Your task to perform on an android device: Play the last video I watched on Youtube Image 0: 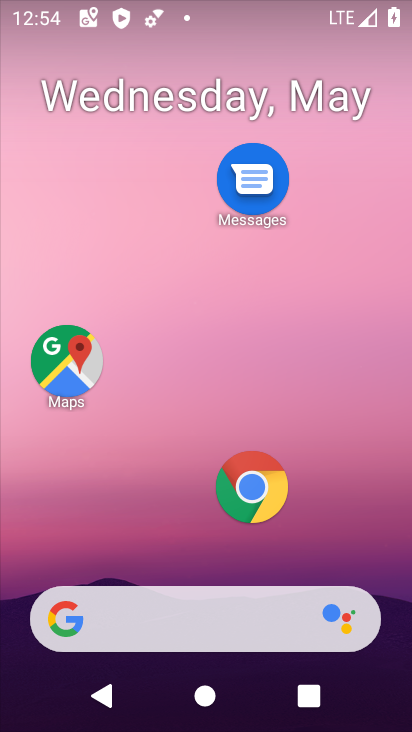
Step 0: drag from (211, 540) to (330, 6)
Your task to perform on an android device: Play the last video I watched on Youtube Image 1: 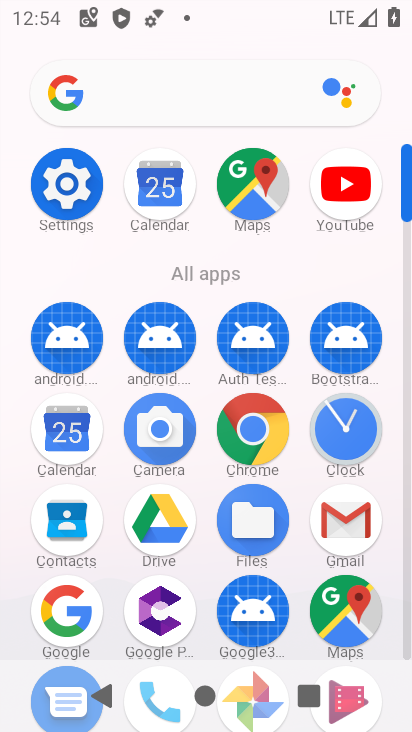
Step 1: click (355, 186)
Your task to perform on an android device: Play the last video I watched on Youtube Image 2: 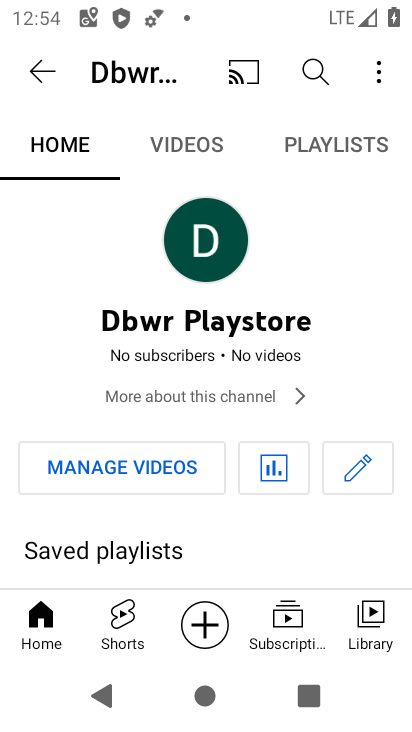
Step 2: click (358, 620)
Your task to perform on an android device: Play the last video I watched on Youtube Image 3: 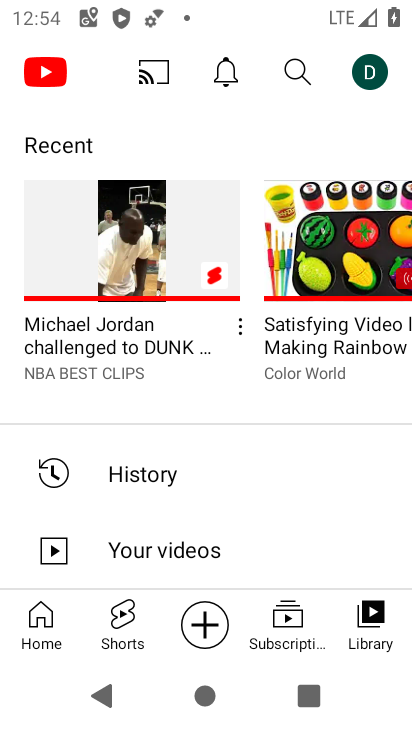
Step 3: click (89, 227)
Your task to perform on an android device: Play the last video I watched on Youtube Image 4: 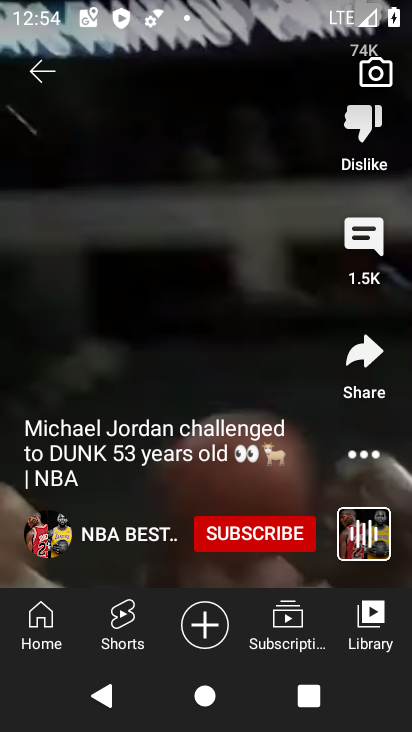
Step 4: task complete